Your task to perform on an android device: turn off sleep mode Image 0: 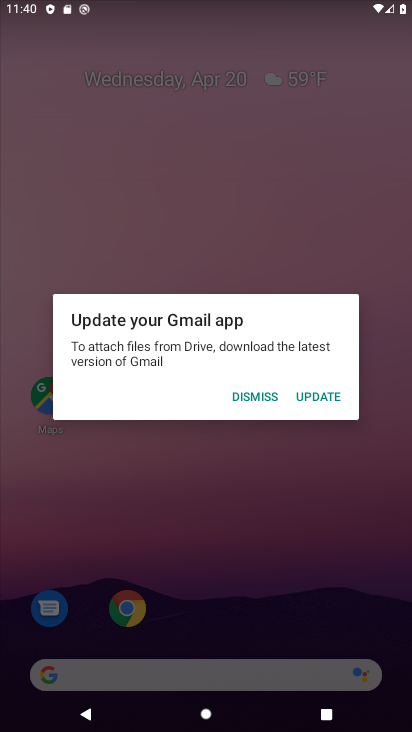
Step 0: press home button
Your task to perform on an android device: turn off sleep mode Image 1: 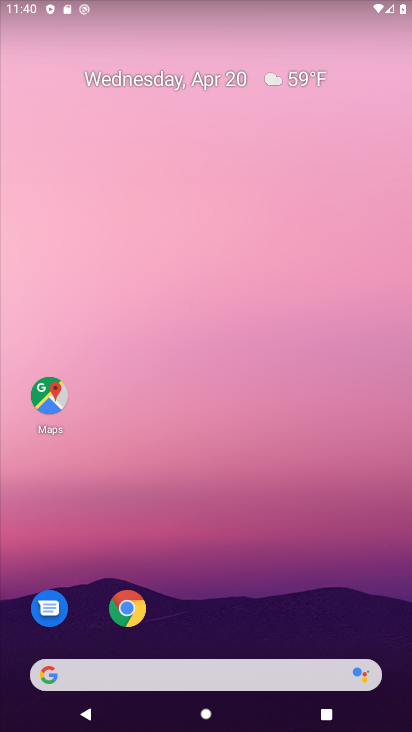
Step 1: drag from (276, 520) to (281, 137)
Your task to perform on an android device: turn off sleep mode Image 2: 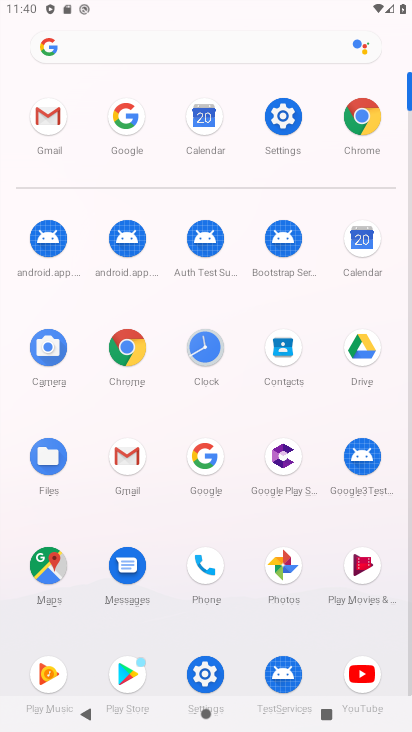
Step 2: click (286, 109)
Your task to perform on an android device: turn off sleep mode Image 3: 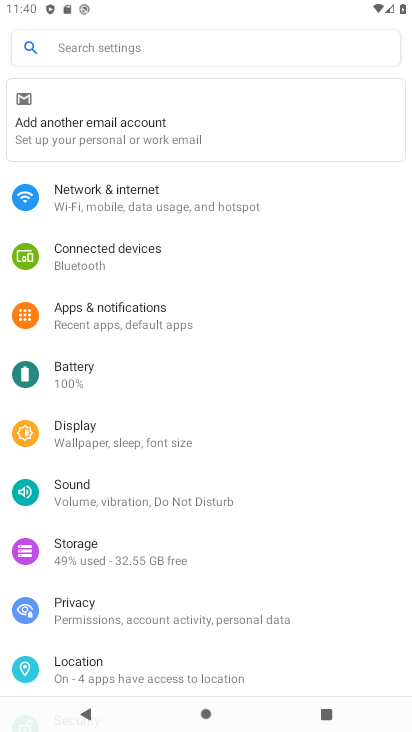
Step 3: click (111, 428)
Your task to perform on an android device: turn off sleep mode Image 4: 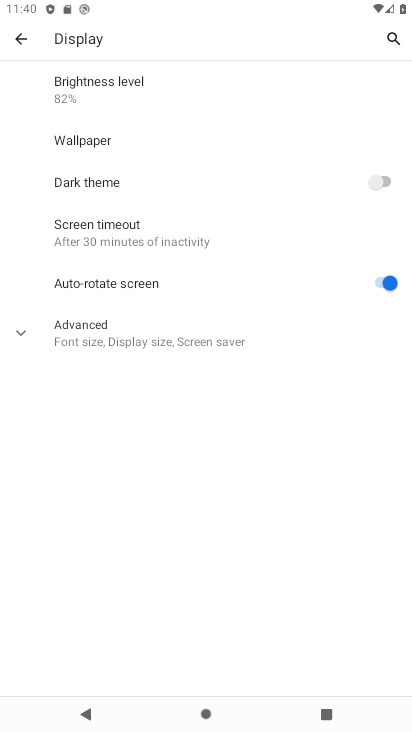
Step 4: click (134, 226)
Your task to perform on an android device: turn off sleep mode Image 5: 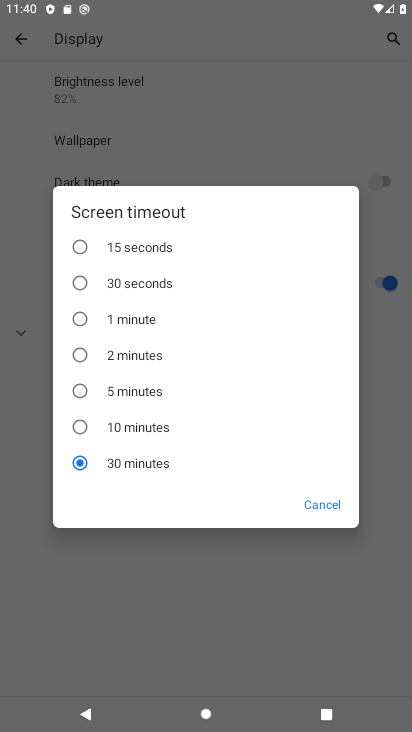
Step 5: task complete